Your task to perform on an android device: Open battery settings Image 0: 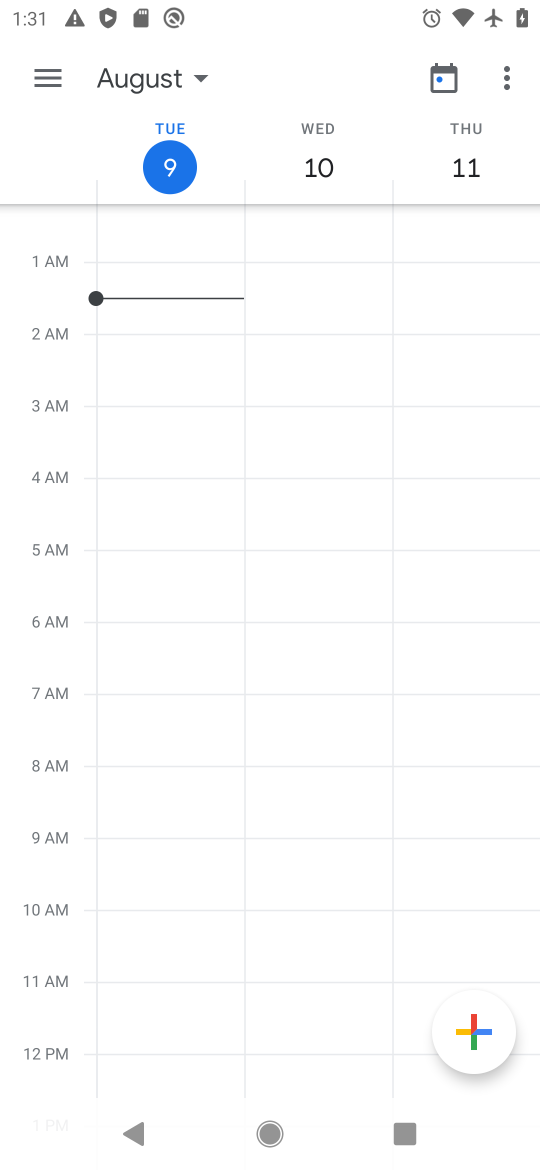
Step 0: press home button
Your task to perform on an android device: Open battery settings Image 1: 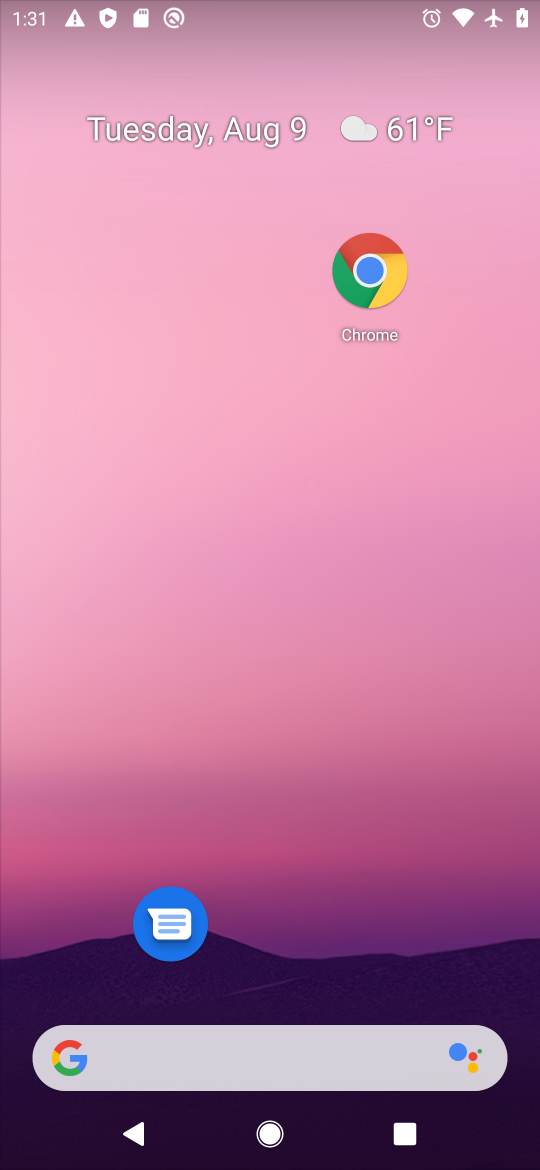
Step 1: drag from (278, 1019) to (319, 62)
Your task to perform on an android device: Open battery settings Image 2: 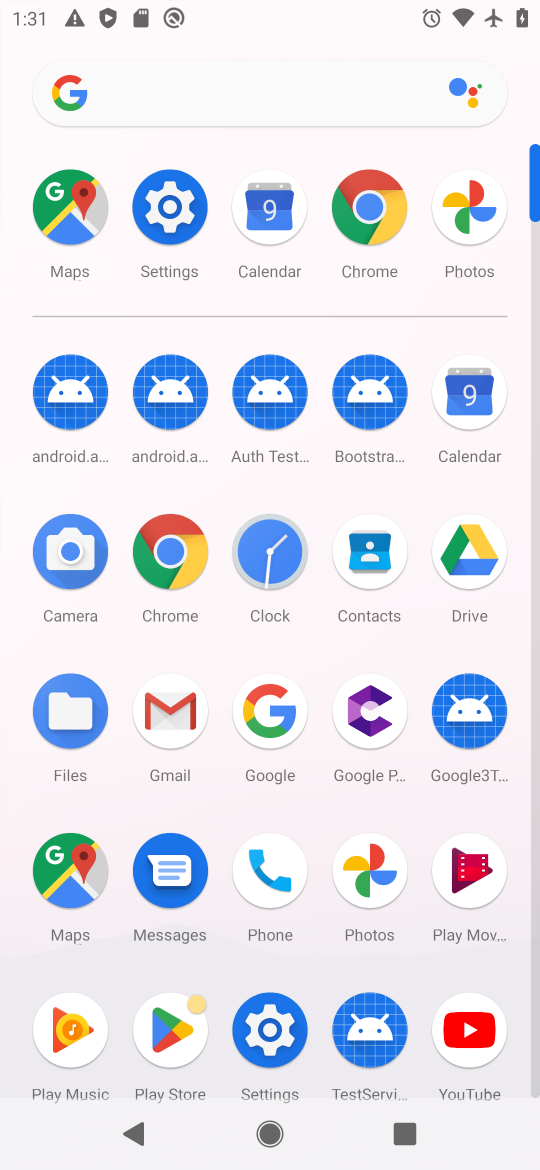
Step 2: click (196, 174)
Your task to perform on an android device: Open battery settings Image 3: 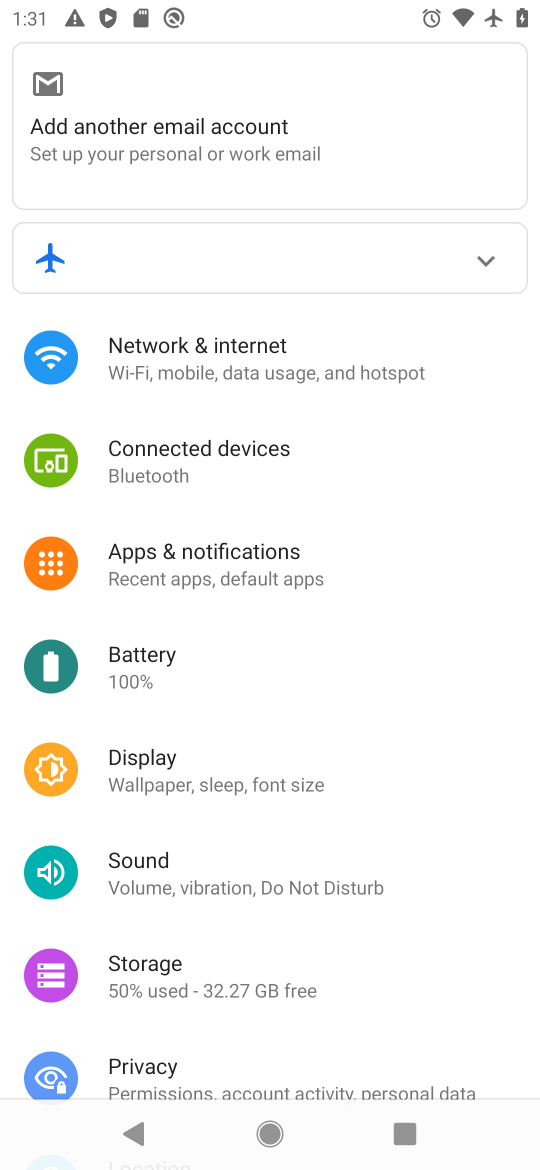
Step 3: click (244, 503)
Your task to perform on an android device: Open battery settings Image 4: 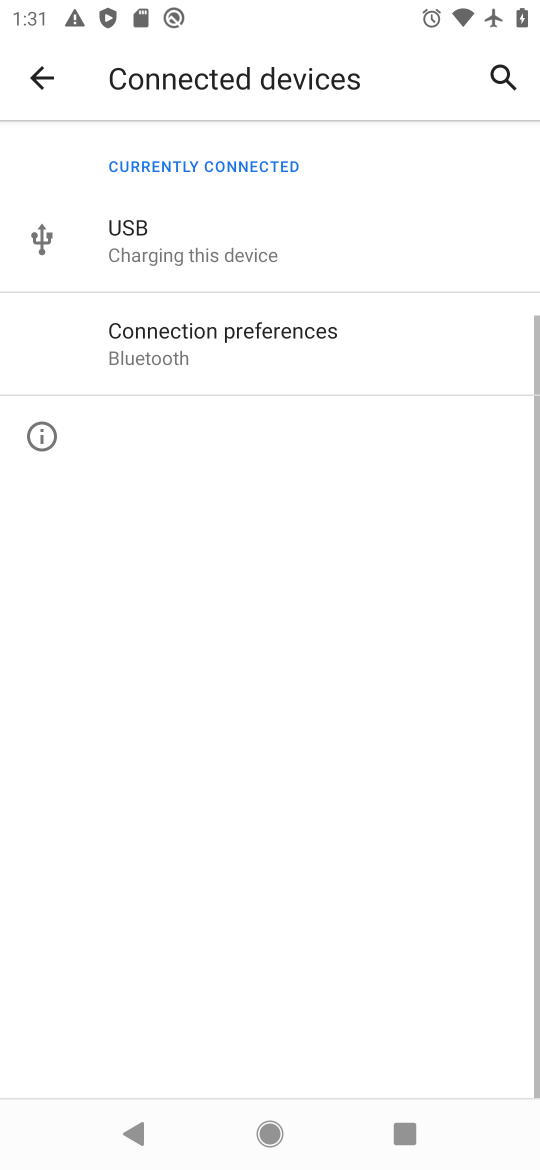
Step 4: task complete